Your task to perform on an android device: delete the emails in spam in the gmail app Image 0: 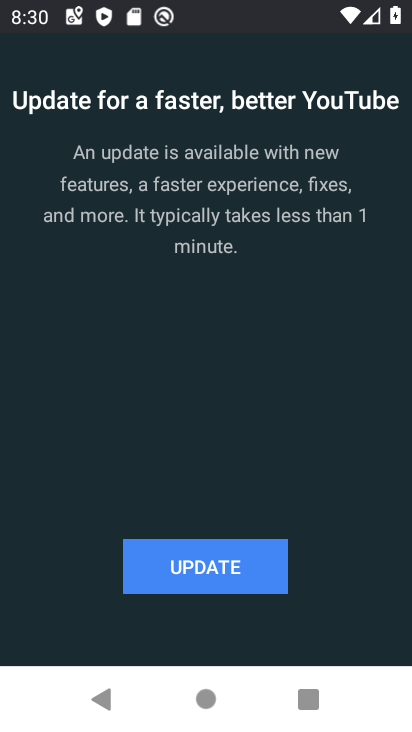
Step 0: press home button
Your task to perform on an android device: delete the emails in spam in the gmail app Image 1: 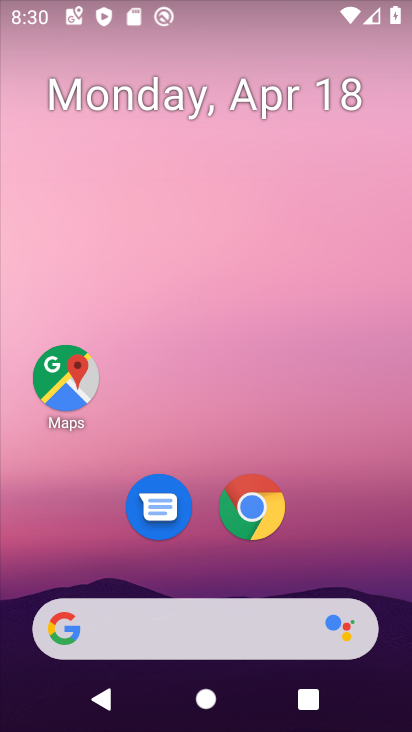
Step 1: drag from (339, 549) to (323, 112)
Your task to perform on an android device: delete the emails in spam in the gmail app Image 2: 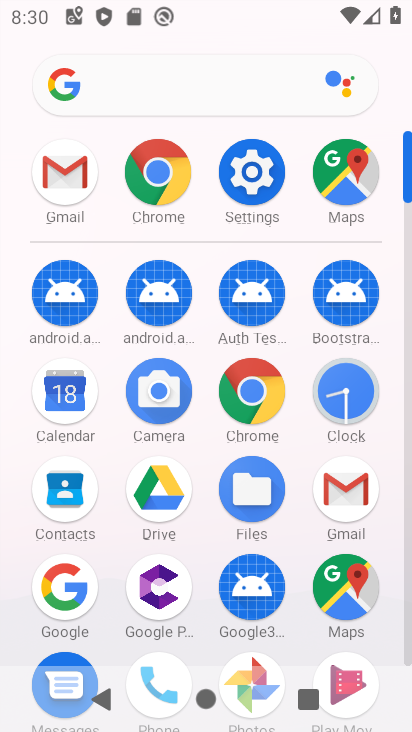
Step 2: click (75, 172)
Your task to perform on an android device: delete the emails in spam in the gmail app Image 3: 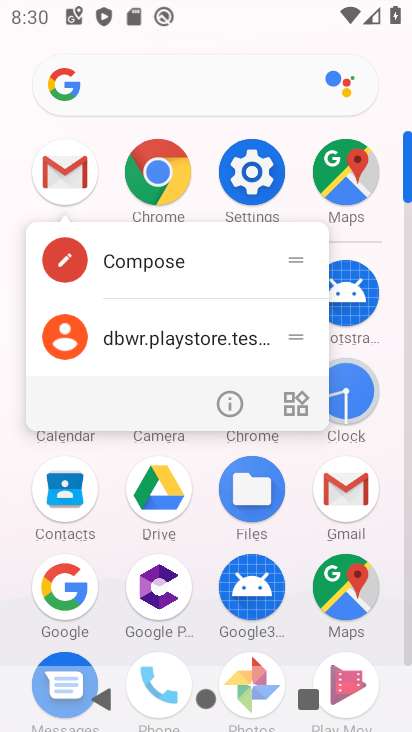
Step 3: click (76, 173)
Your task to perform on an android device: delete the emails in spam in the gmail app Image 4: 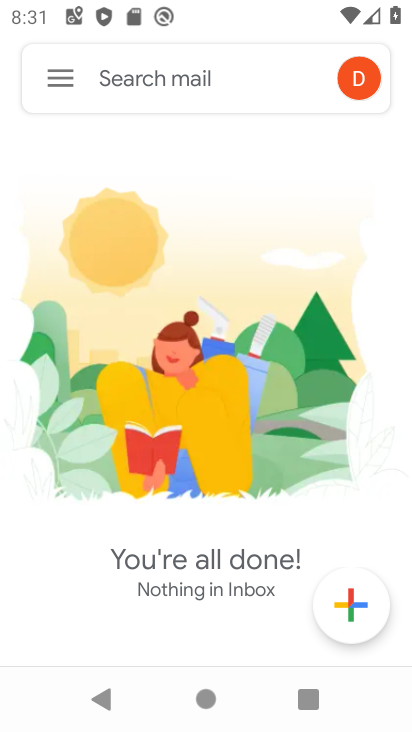
Step 4: click (58, 76)
Your task to perform on an android device: delete the emails in spam in the gmail app Image 5: 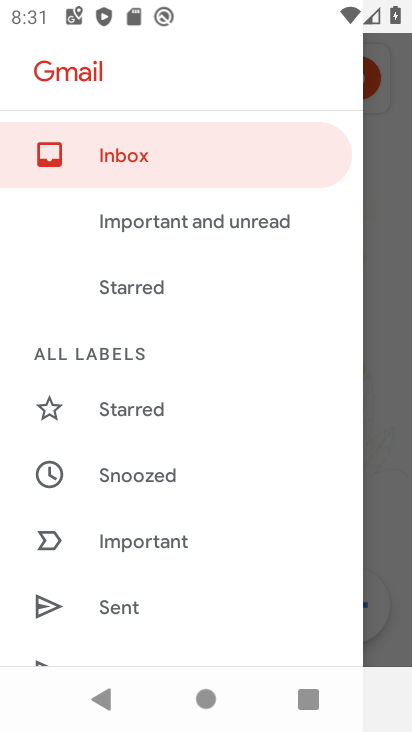
Step 5: drag from (161, 562) to (210, 219)
Your task to perform on an android device: delete the emails in spam in the gmail app Image 6: 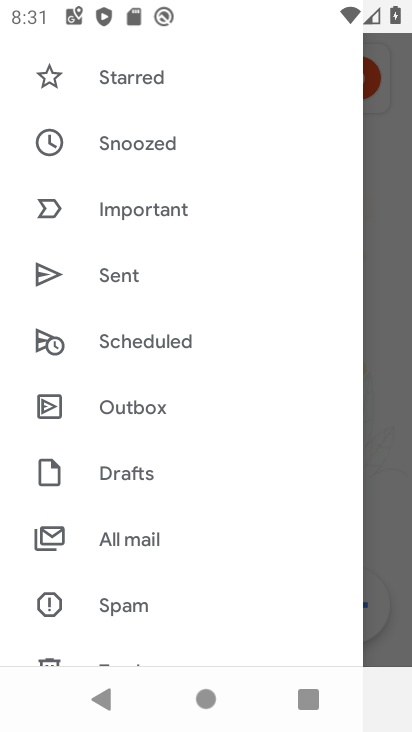
Step 6: click (141, 604)
Your task to perform on an android device: delete the emails in spam in the gmail app Image 7: 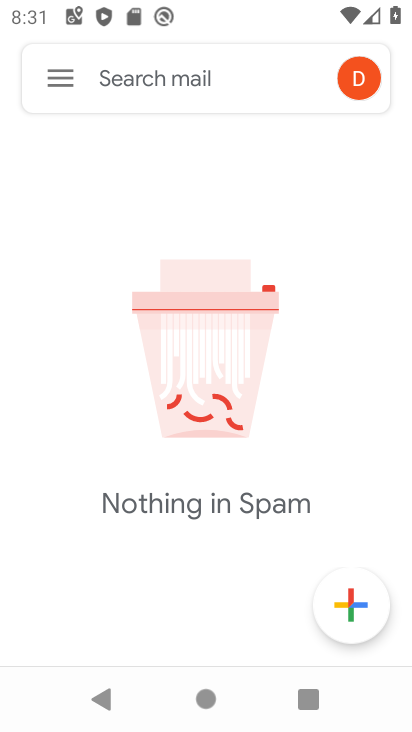
Step 7: task complete